Your task to perform on an android device: add a label to a message in the gmail app Image 0: 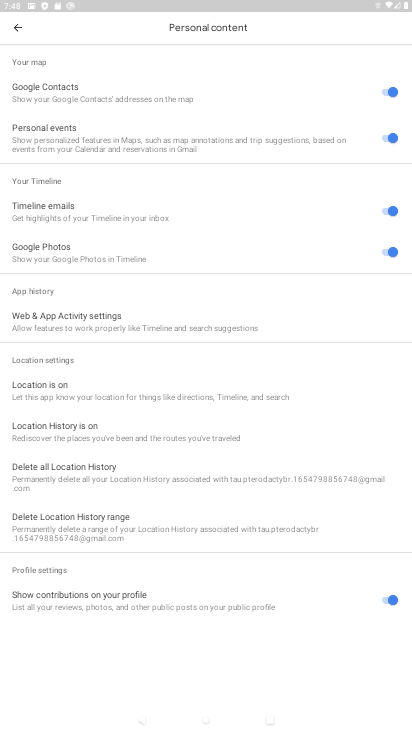
Step 0: press home button
Your task to perform on an android device: add a label to a message in the gmail app Image 1: 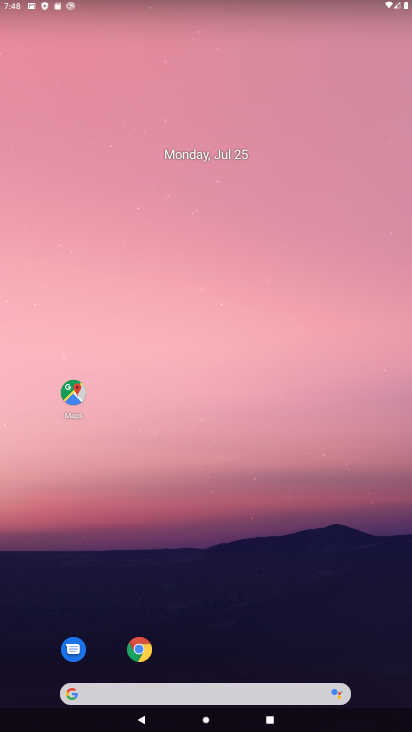
Step 1: drag from (246, 660) to (215, 175)
Your task to perform on an android device: add a label to a message in the gmail app Image 2: 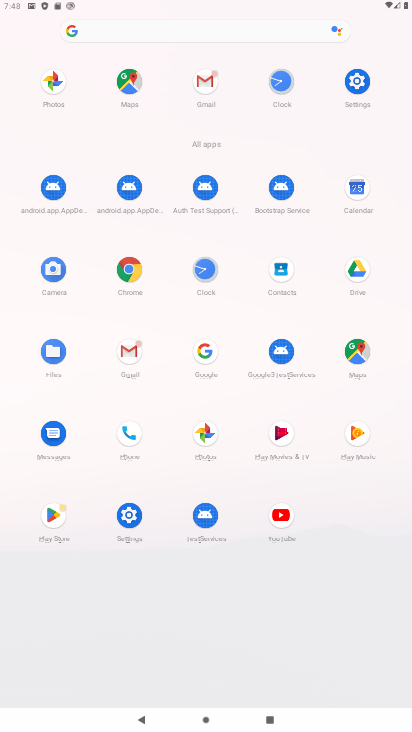
Step 2: click (199, 90)
Your task to perform on an android device: add a label to a message in the gmail app Image 3: 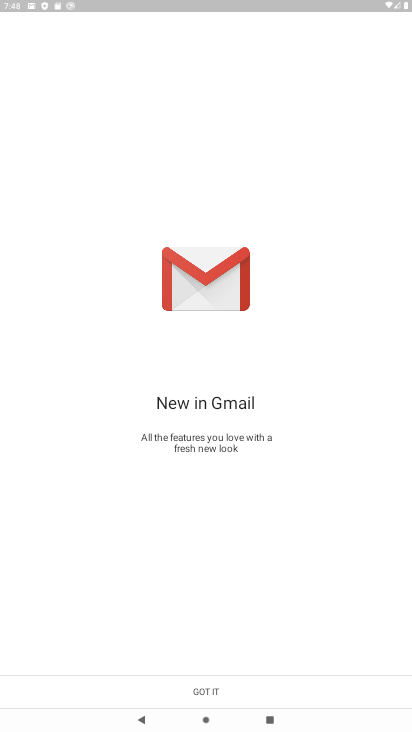
Step 3: click (224, 693)
Your task to perform on an android device: add a label to a message in the gmail app Image 4: 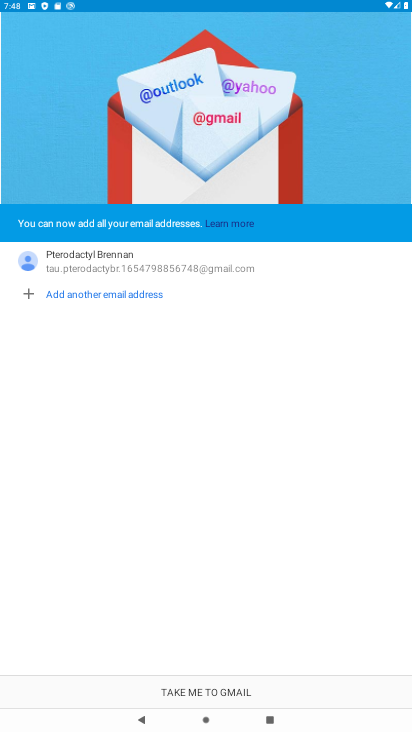
Step 4: click (224, 693)
Your task to perform on an android device: add a label to a message in the gmail app Image 5: 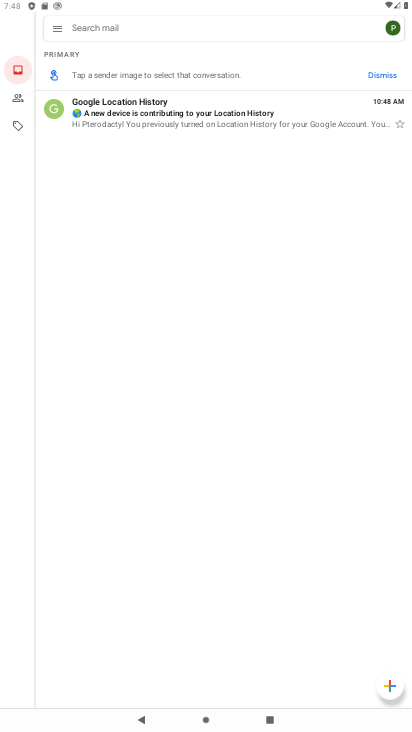
Step 5: click (303, 118)
Your task to perform on an android device: add a label to a message in the gmail app Image 6: 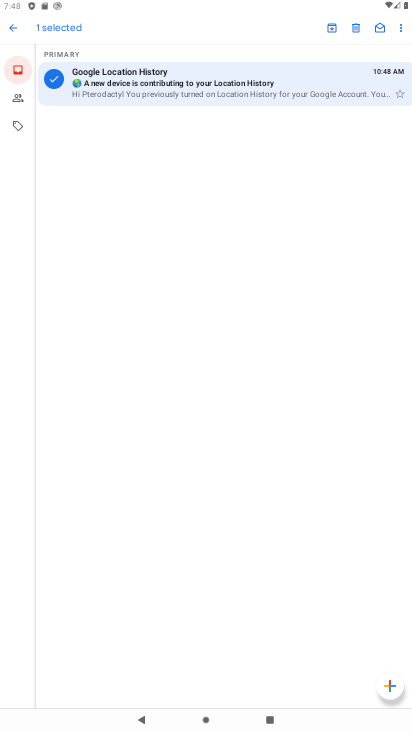
Step 6: click (393, 30)
Your task to perform on an android device: add a label to a message in the gmail app Image 7: 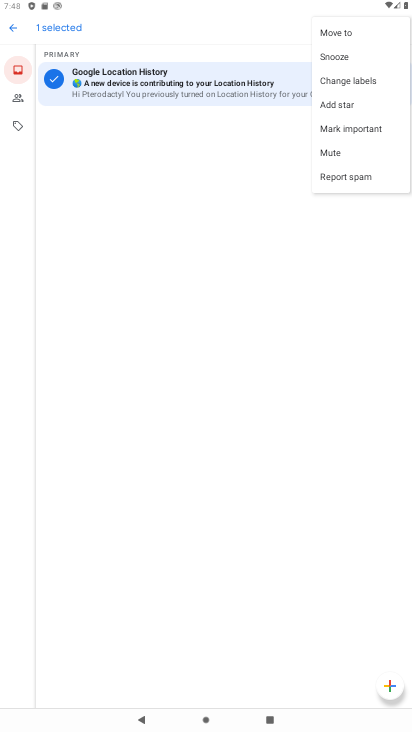
Step 7: click (370, 87)
Your task to perform on an android device: add a label to a message in the gmail app Image 8: 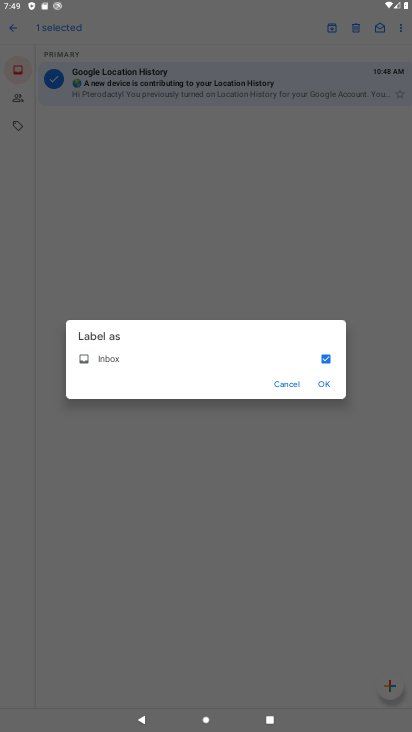
Step 8: click (318, 381)
Your task to perform on an android device: add a label to a message in the gmail app Image 9: 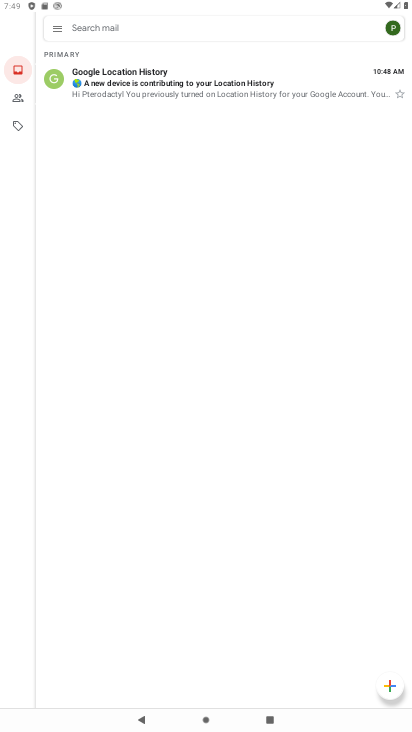
Step 9: task complete